Your task to perform on an android device: Open Youtube and go to "Your channel" Image 0: 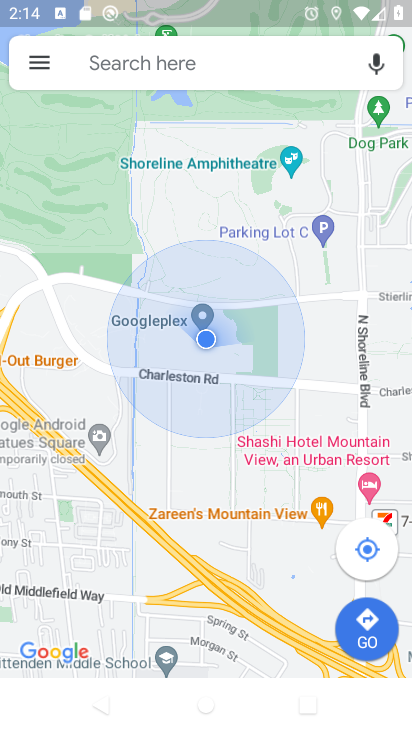
Step 0: press home button
Your task to perform on an android device: Open Youtube and go to "Your channel" Image 1: 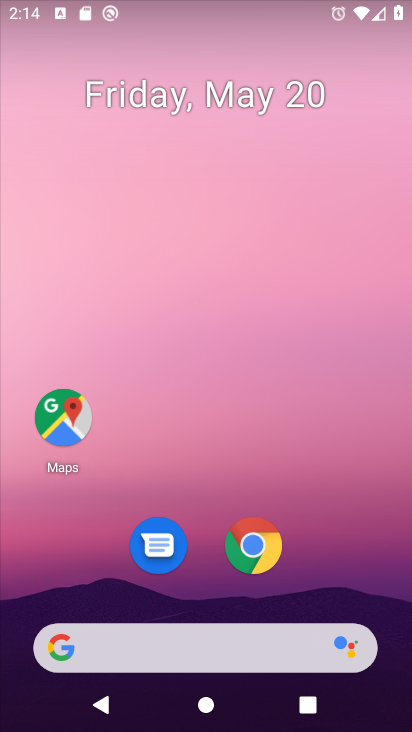
Step 1: drag from (315, 666) to (213, 0)
Your task to perform on an android device: Open Youtube and go to "Your channel" Image 2: 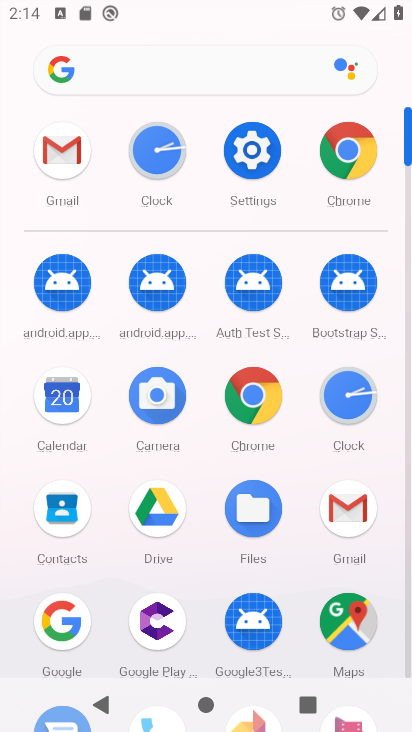
Step 2: drag from (294, 549) to (308, 82)
Your task to perform on an android device: Open Youtube and go to "Your channel" Image 3: 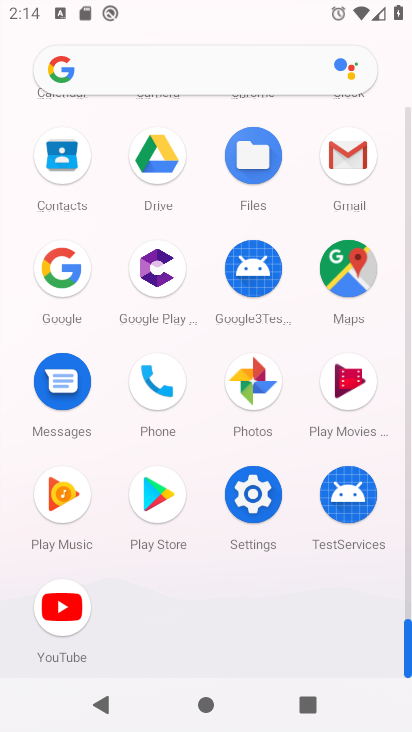
Step 3: click (68, 631)
Your task to perform on an android device: Open Youtube and go to "Your channel" Image 4: 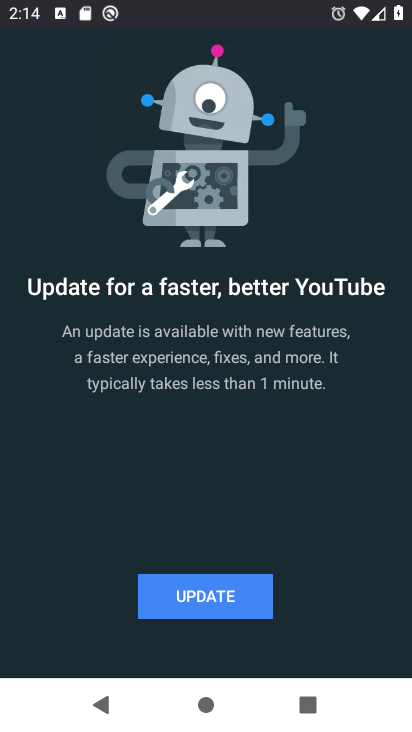
Step 4: click (178, 588)
Your task to perform on an android device: Open Youtube and go to "Your channel" Image 5: 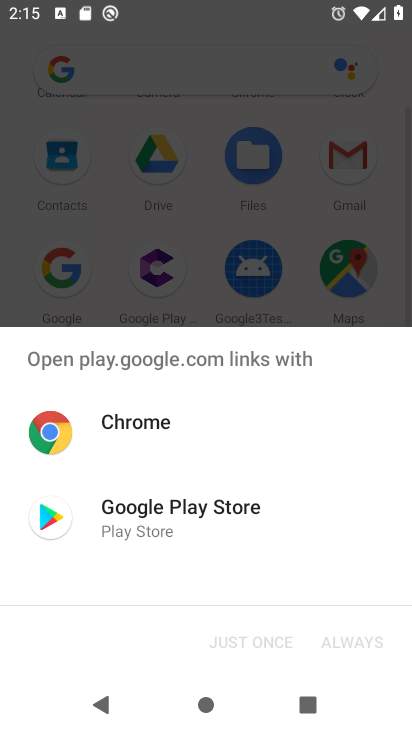
Step 5: click (173, 511)
Your task to perform on an android device: Open Youtube and go to "Your channel" Image 6: 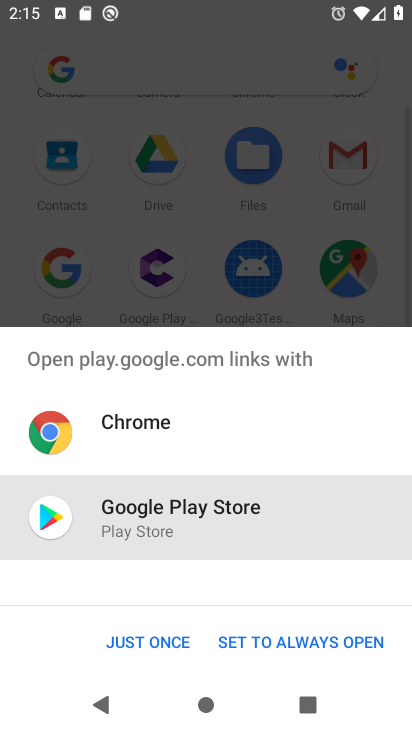
Step 6: click (155, 640)
Your task to perform on an android device: Open Youtube and go to "Your channel" Image 7: 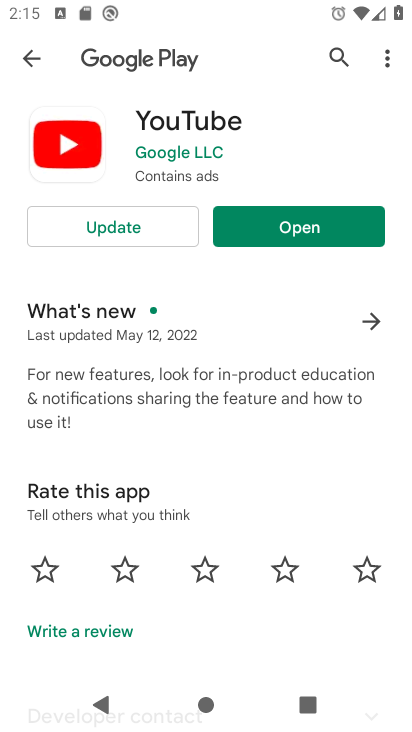
Step 7: click (114, 218)
Your task to perform on an android device: Open Youtube and go to "Your channel" Image 8: 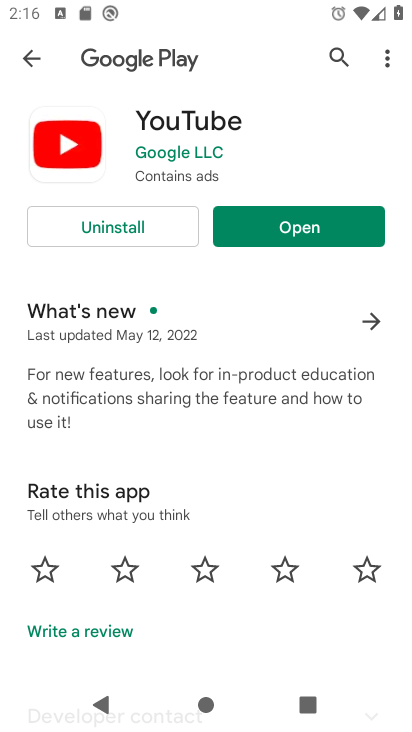
Step 8: click (361, 232)
Your task to perform on an android device: Open Youtube and go to "Your channel" Image 9: 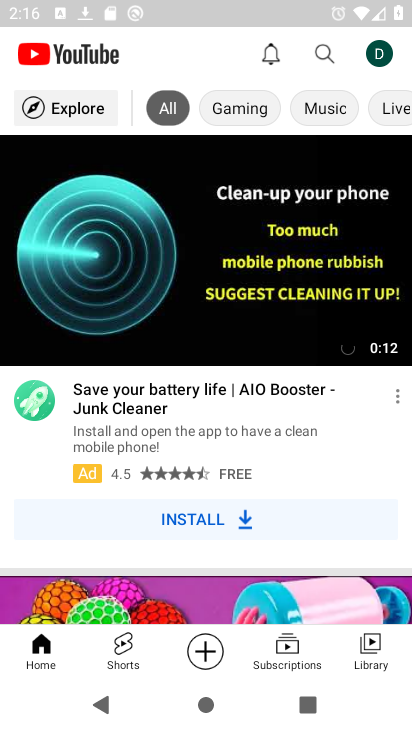
Step 9: click (379, 50)
Your task to perform on an android device: Open Youtube and go to "Your channel" Image 10: 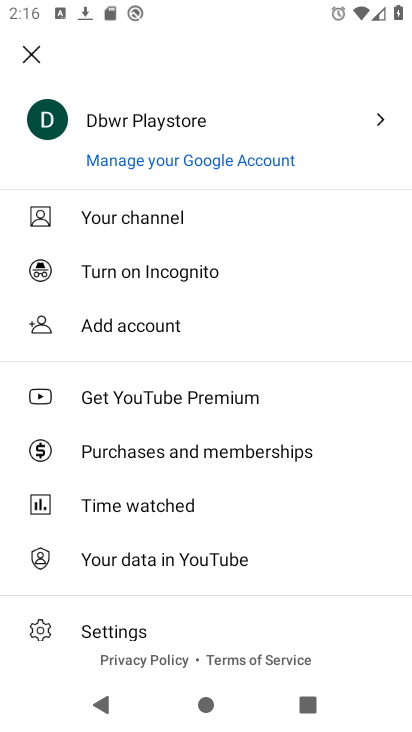
Step 10: click (162, 224)
Your task to perform on an android device: Open Youtube and go to "Your channel" Image 11: 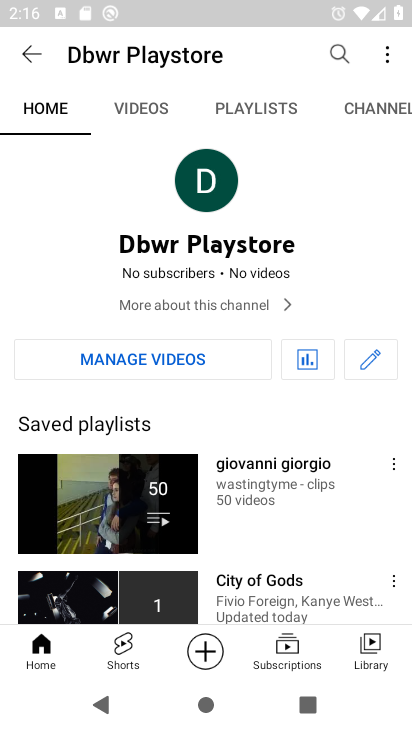
Step 11: task complete